Your task to perform on an android device: Open settings on Google Maps Image 0: 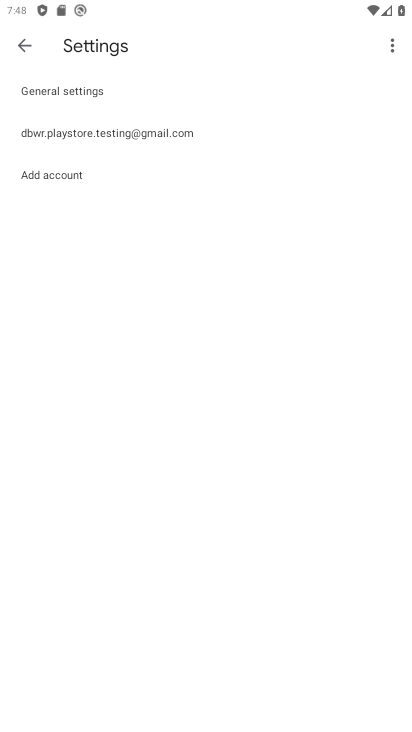
Step 0: press home button
Your task to perform on an android device: Open settings on Google Maps Image 1: 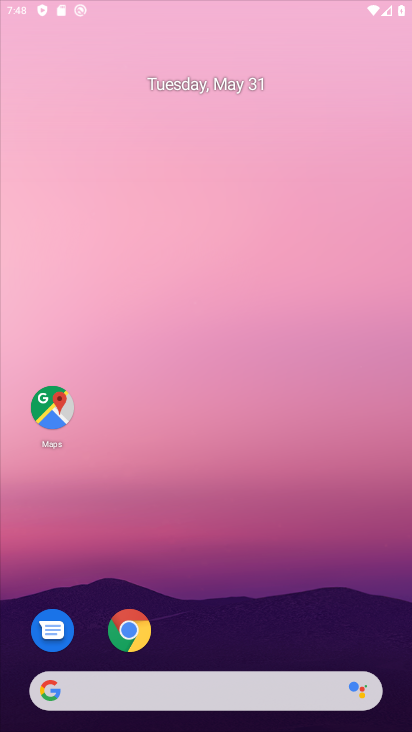
Step 1: press home button
Your task to perform on an android device: Open settings on Google Maps Image 2: 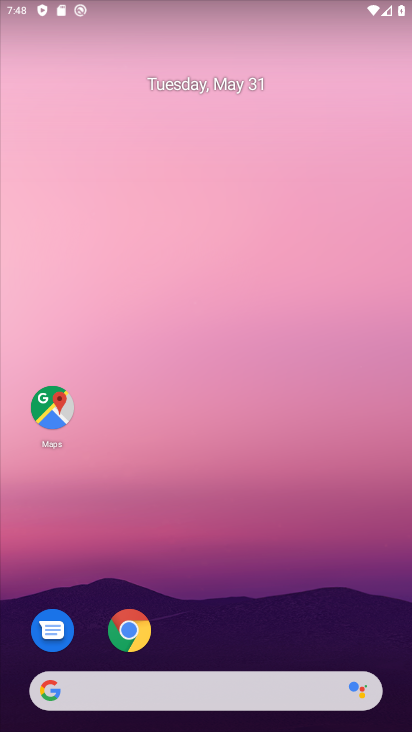
Step 2: click (65, 385)
Your task to perform on an android device: Open settings on Google Maps Image 3: 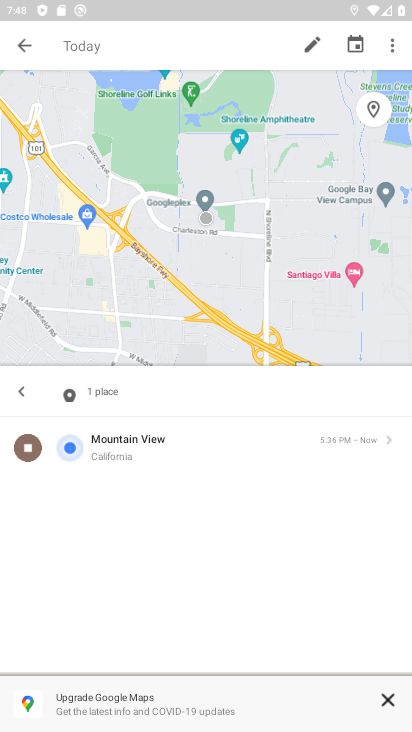
Step 3: task complete